Your task to perform on an android device: Go to settings Image 0: 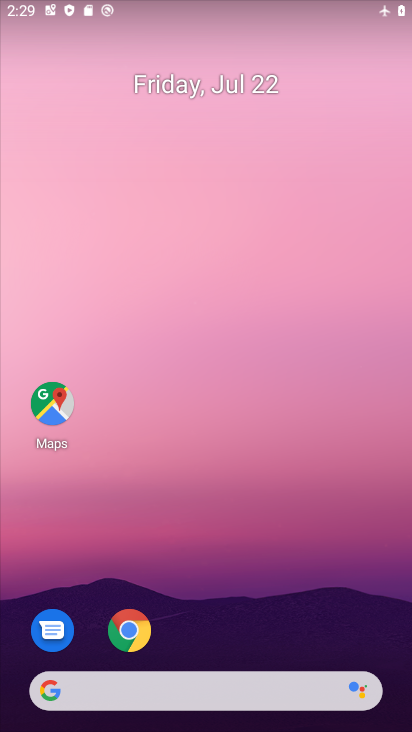
Step 0: drag from (201, 664) to (142, 117)
Your task to perform on an android device: Go to settings Image 1: 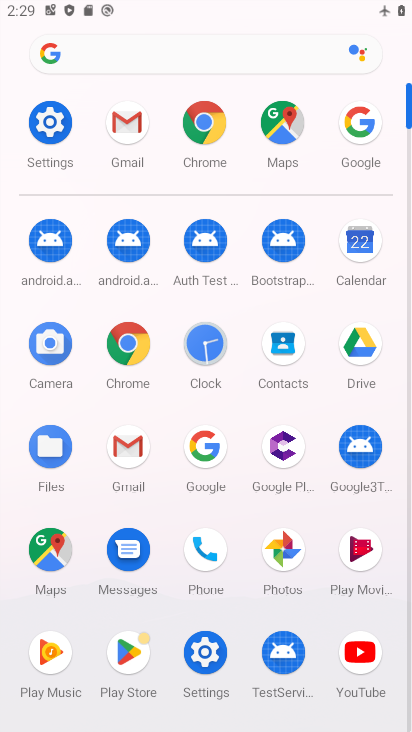
Step 1: click (54, 141)
Your task to perform on an android device: Go to settings Image 2: 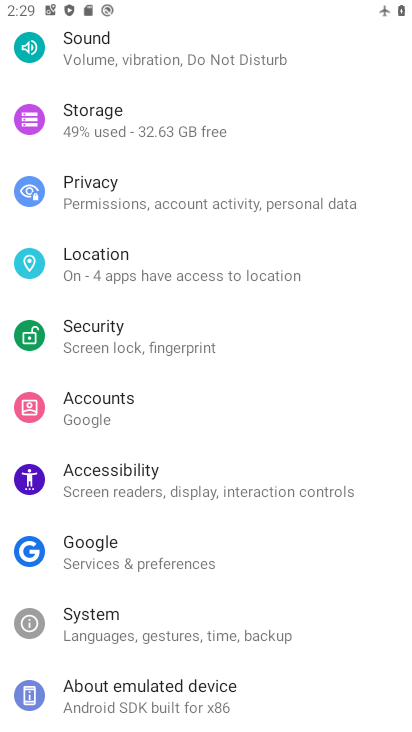
Step 2: click (59, 90)
Your task to perform on an android device: Go to settings Image 3: 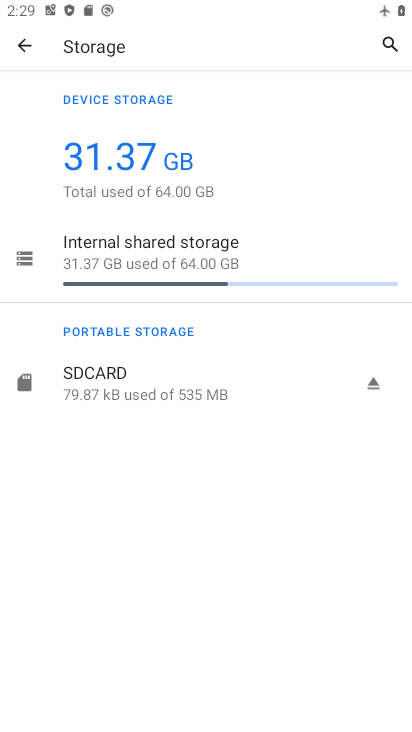
Step 3: click (28, 55)
Your task to perform on an android device: Go to settings Image 4: 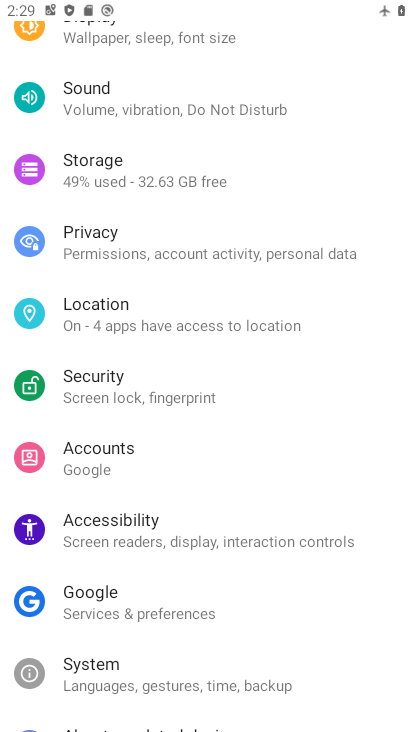
Step 4: task complete